Your task to perform on an android device: turn on airplane mode Image 0: 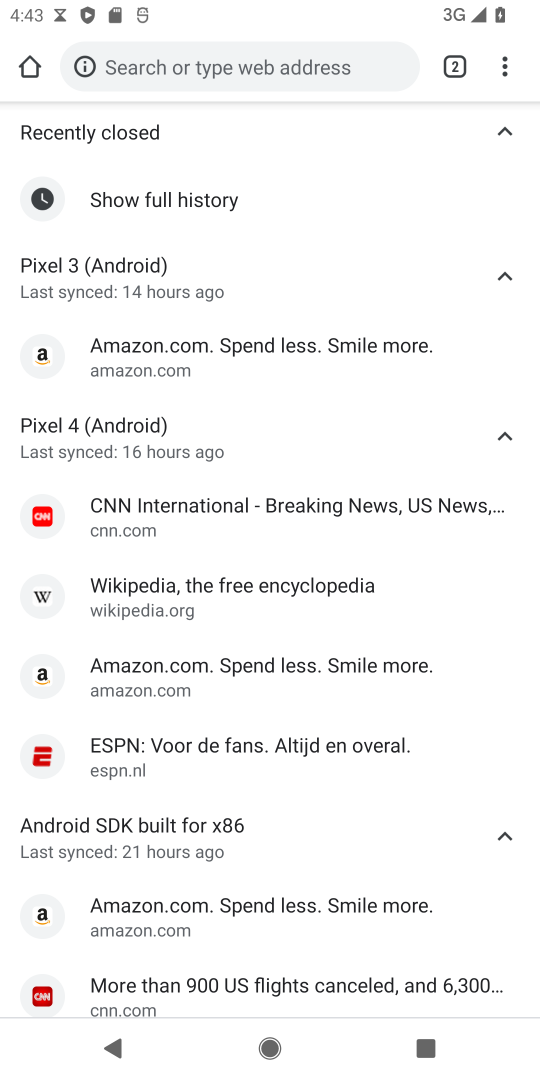
Step 0: press back button
Your task to perform on an android device: turn on airplane mode Image 1: 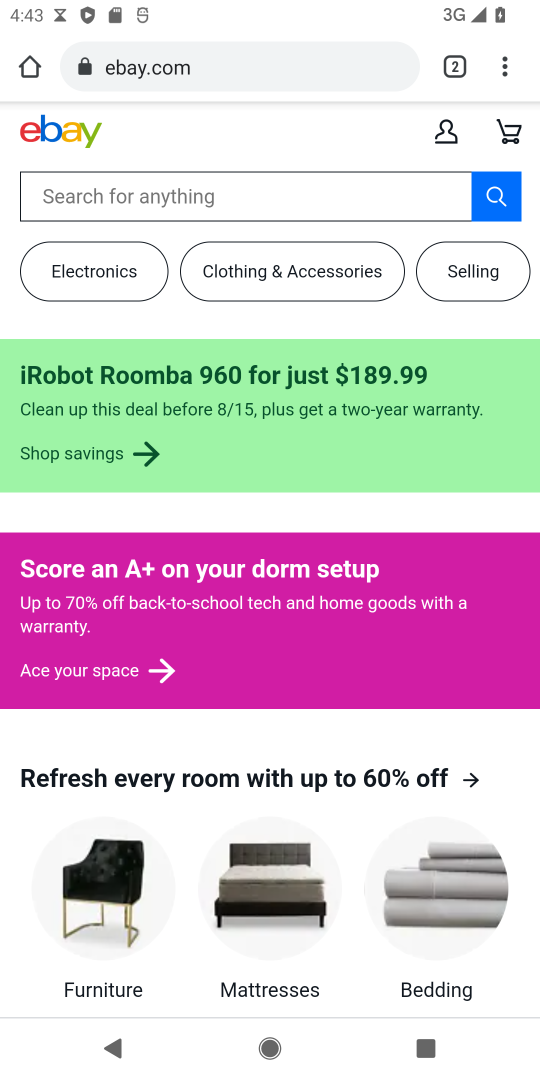
Step 1: press home button
Your task to perform on an android device: turn on airplane mode Image 2: 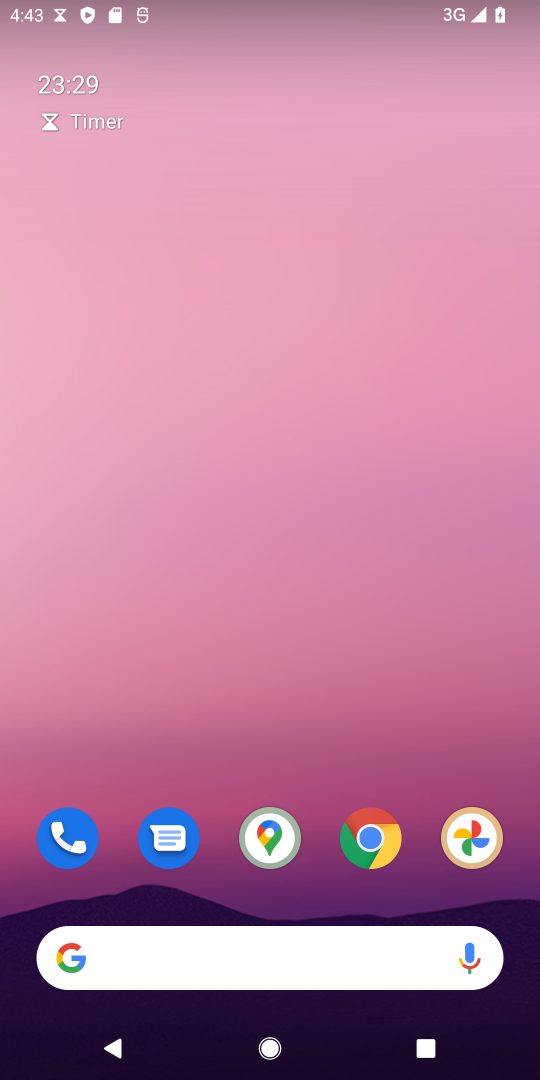
Step 2: drag from (315, 791) to (229, 6)
Your task to perform on an android device: turn on airplane mode Image 3: 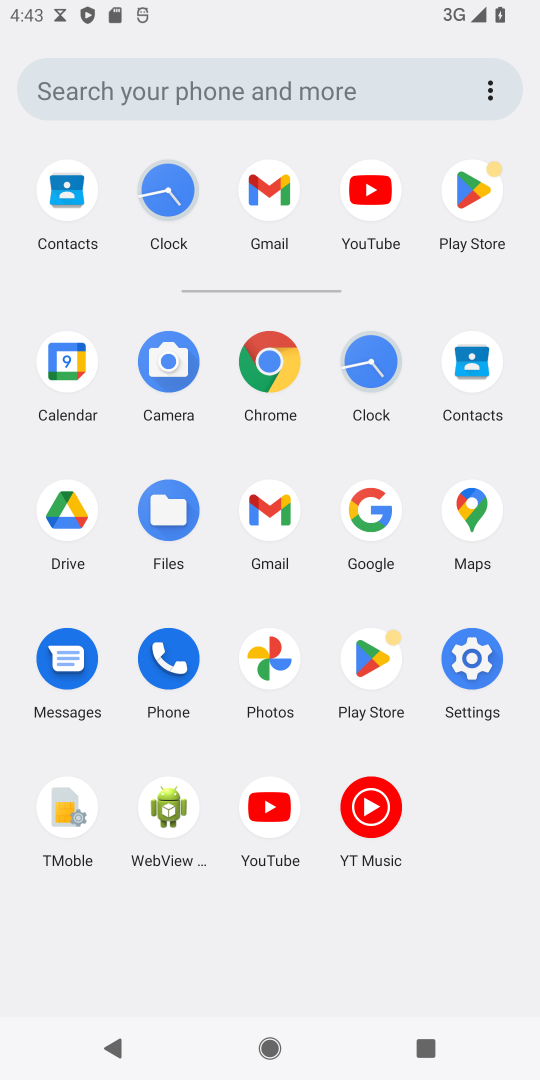
Step 3: click (475, 665)
Your task to perform on an android device: turn on airplane mode Image 4: 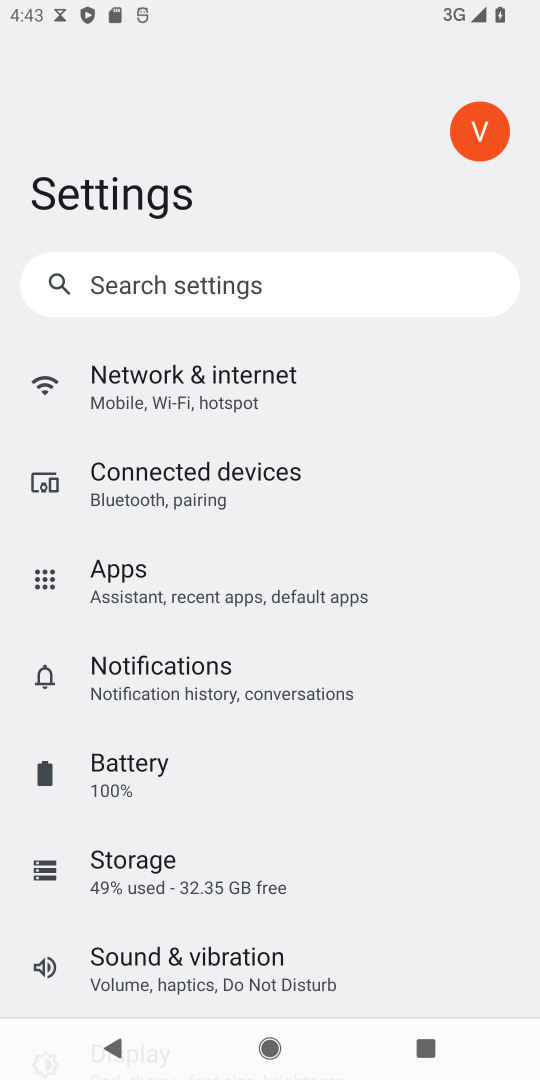
Step 4: click (282, 402)
Your task to perform on an android device: turn on airplane mode Image 5: 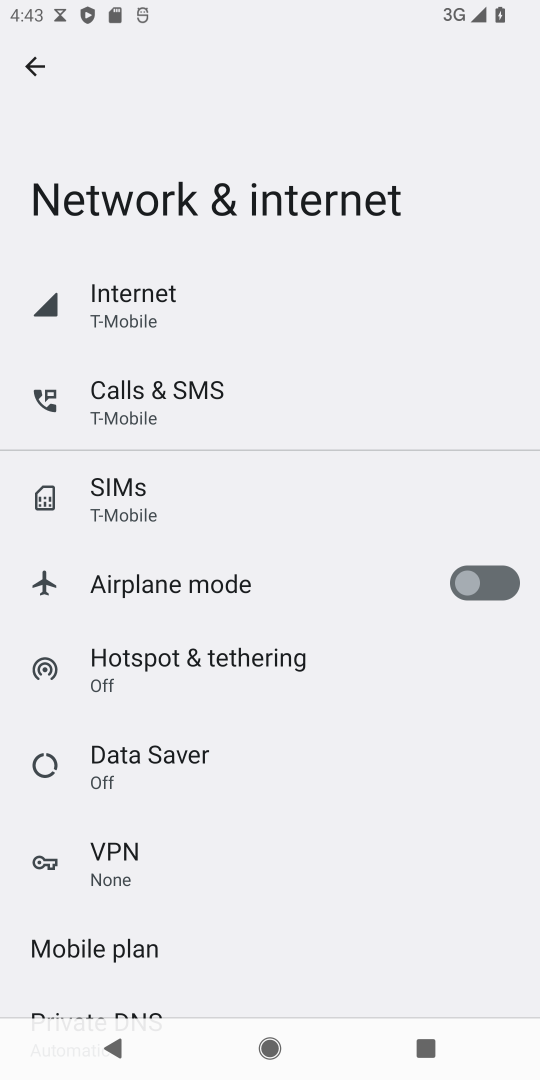
Step 5: click (483, 598)
Your task to perform on an android device: turn on airplane mode Image 6: 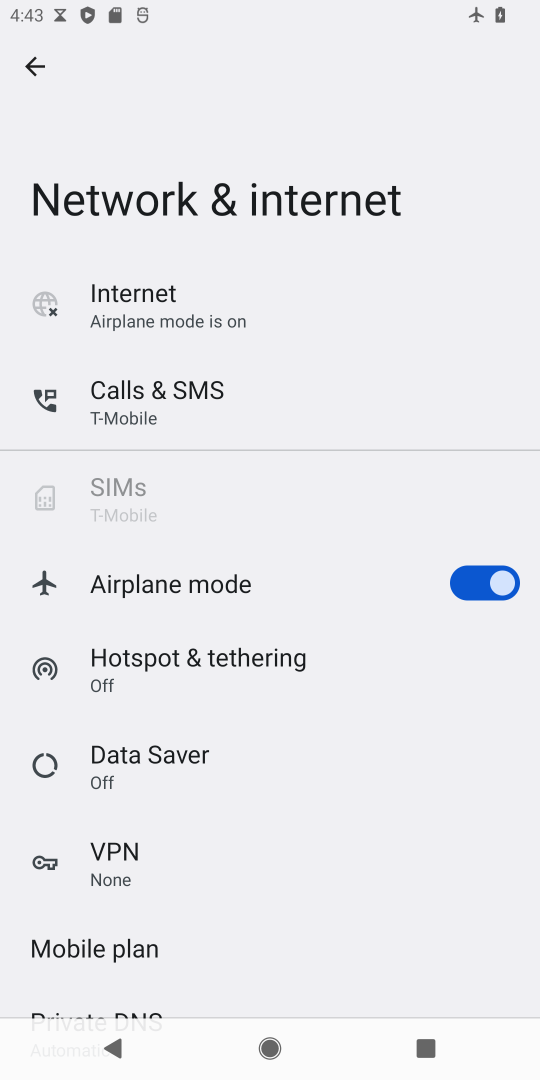
Step 6: task complete